Your task to perform on an android device: toggle show notifications on the lock screen Image 0: 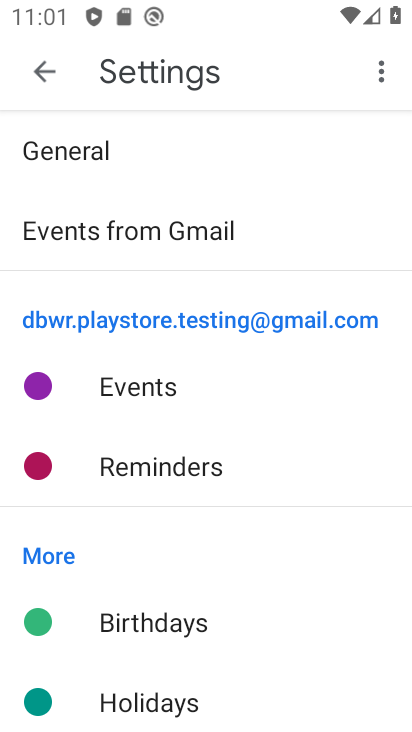
Step 0: press home button
Your task to perform on an android device: toggle show notifications on the lock screen Image 1: 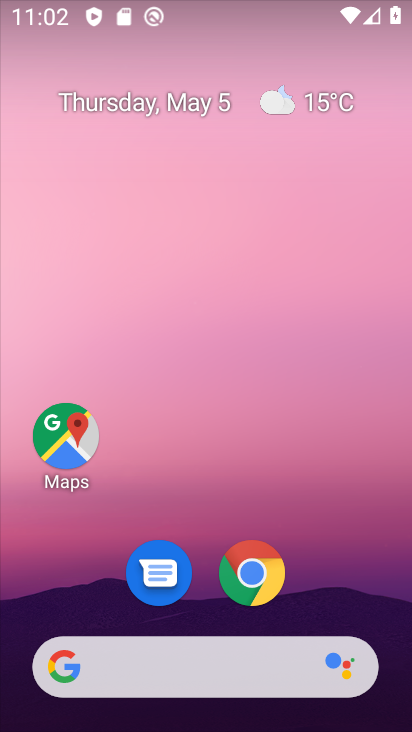
Step 1: drag from (107, 584) to (225, 67)
Your task to perform on an android device: toggle show notifications on the lock screen Image 2: 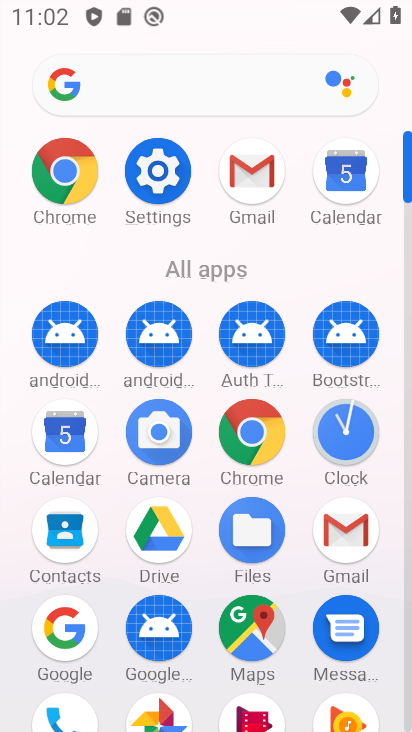
Step 2: drag from (144, 690) to (224, 349)
Your task to perform on an android device: toggle show notifications on the lock screen Image 3: 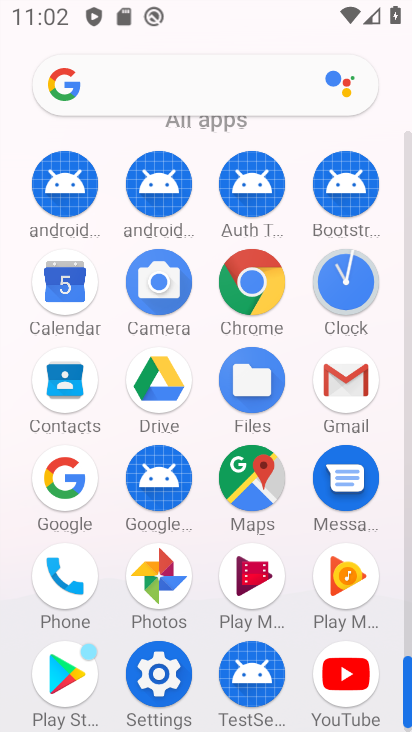
Step 3: click (145, 685)
Your task to perform on an android device: toggle show notifications on the lock screen Image 4: 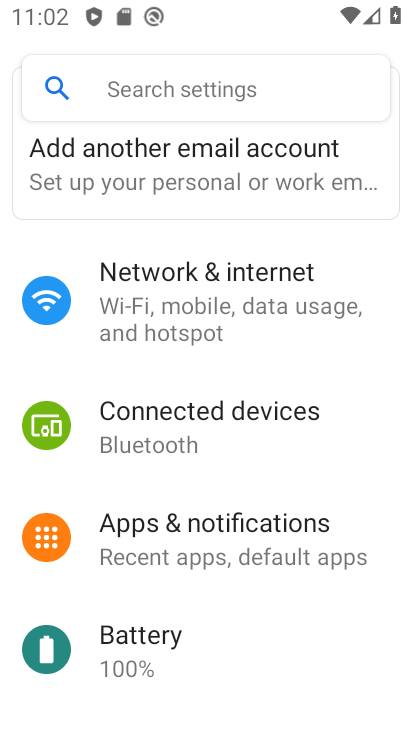
Step 4: click (262, 552)
Your task to perform on an android device: toggle show notifications on the lock screen Image 5: 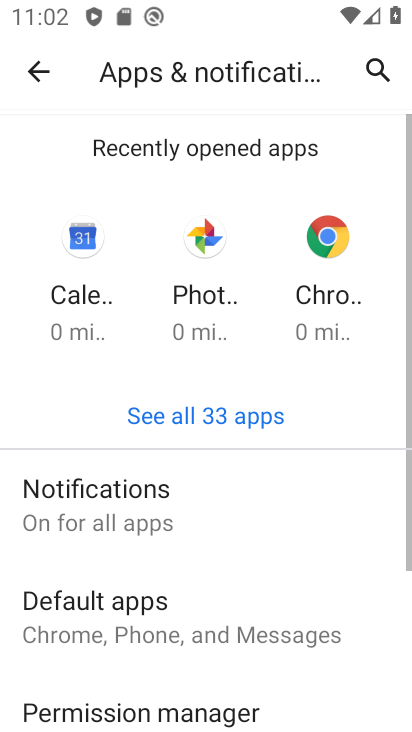
Step 5: drag from (191, 662) to (325, 217)
Your task to perform on an android device: toggle show notifications on the lock screen Image 6: 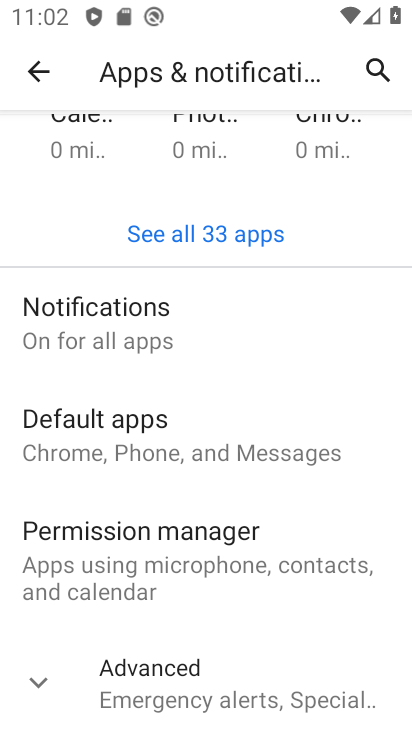
Step 6: click (226, 323)
Your task to perform on an android device: toggle show notifications on the lock screen Image 7: 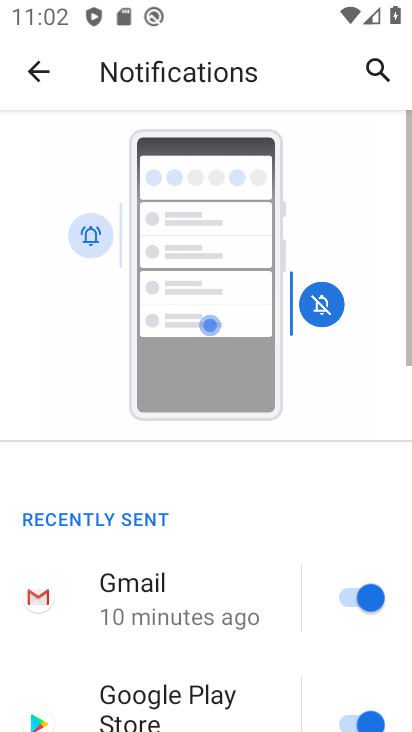
Step 7: drag from (100, 700) to (261, 105)
Your task to perform on an android device: toggle show notifications on the lock screen Image 8: 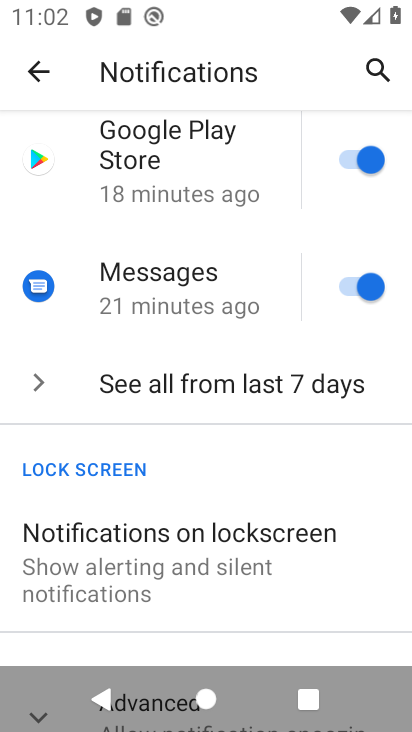
Step 8: click (163, 579)
Your task to perform on an android device: toggle show notifications on the lock screen Image 9: 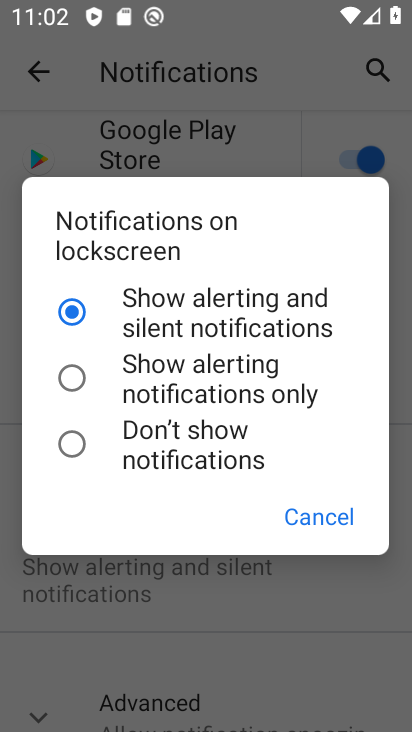
Step 9: click (53, 396)
Your task to perform on an android device: toggle show notifications on the lock screen Image 10: 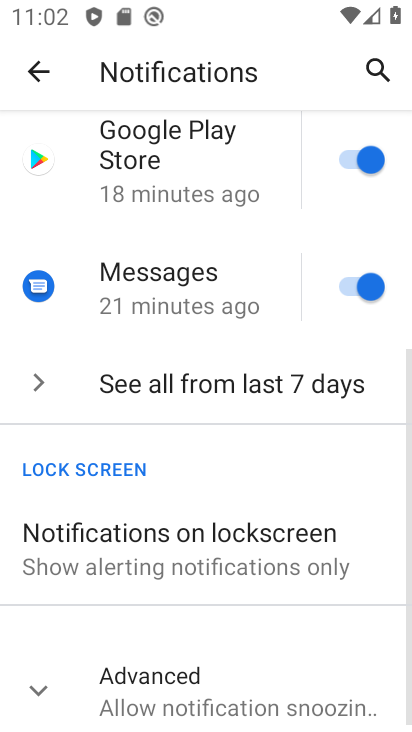
Step 10: task complete